Your task to perform on an android device: Open settings Image 0: 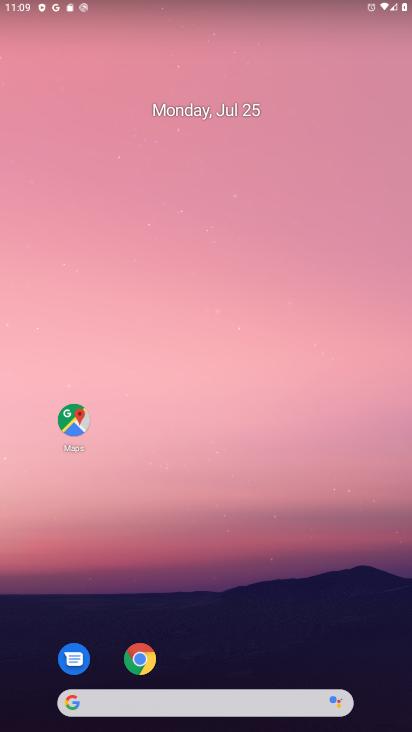
Step 0: drag from (217, 615) to (135, 100)
Your task to perform on an android device: Open settings Image 1: 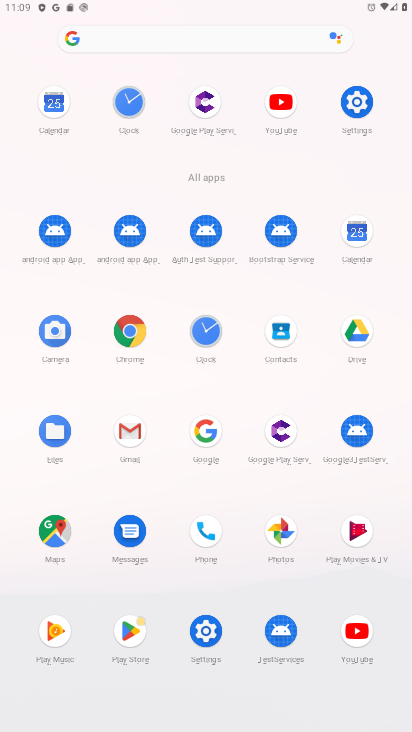
Step 1: click (361, 90)
Your task to perform on an android device: Open settings Image 2: 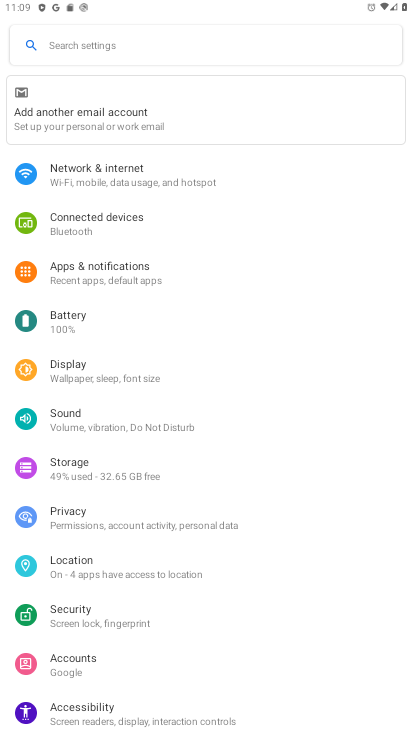
Step 2: task complete